Your task to perform on an android device: turn off translation in the chrome app Image 0: 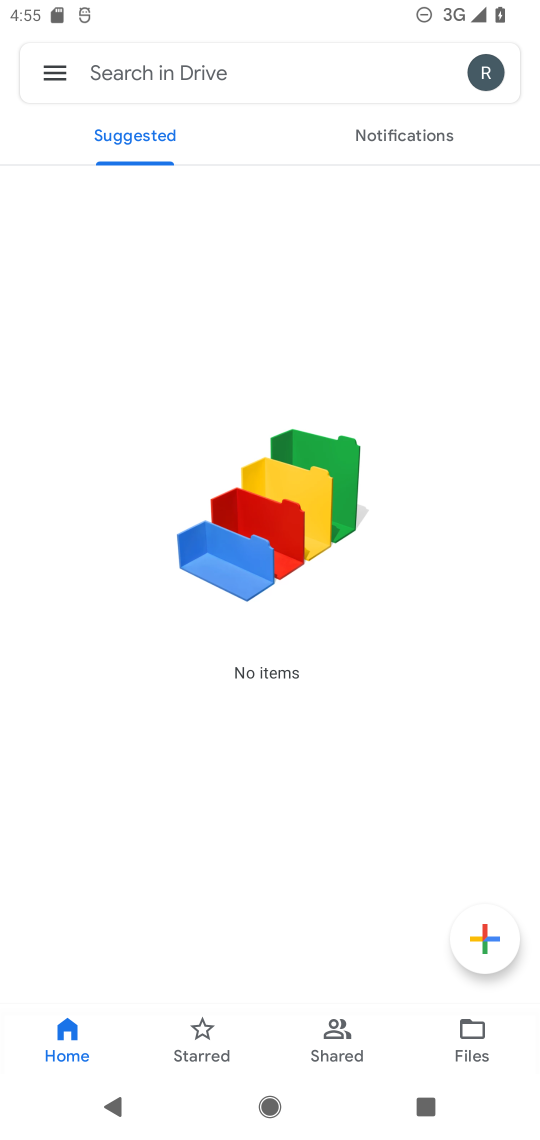
Step 0: press home button
Your task to perform on an android device: turn off translation in the chrome app Image 1: 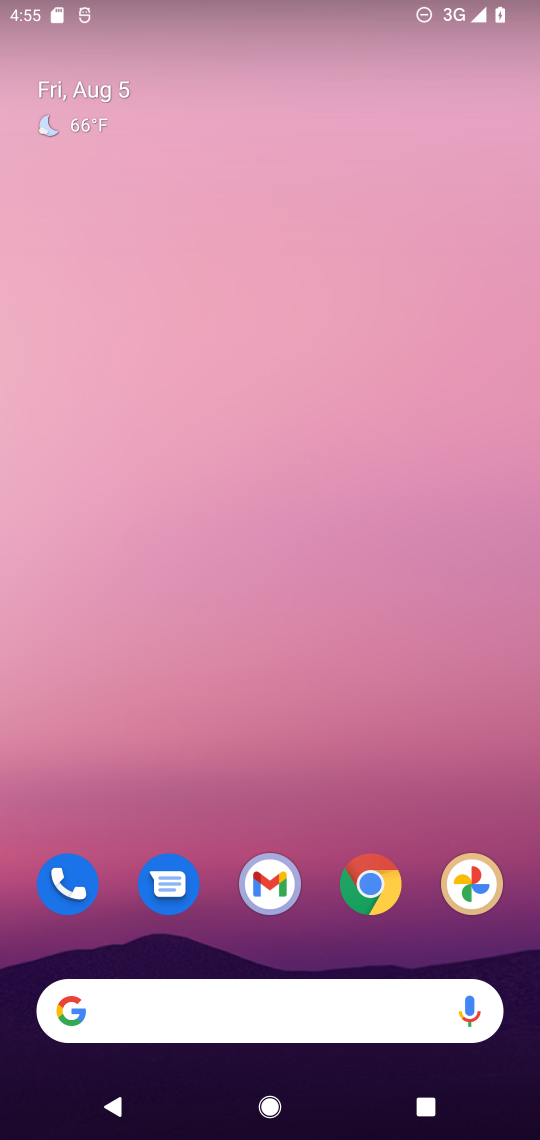
Step 1: drag from (418, 929) to (198, 57)
Your task to perform on an android device: turn off translation in the chrome app Image 2: 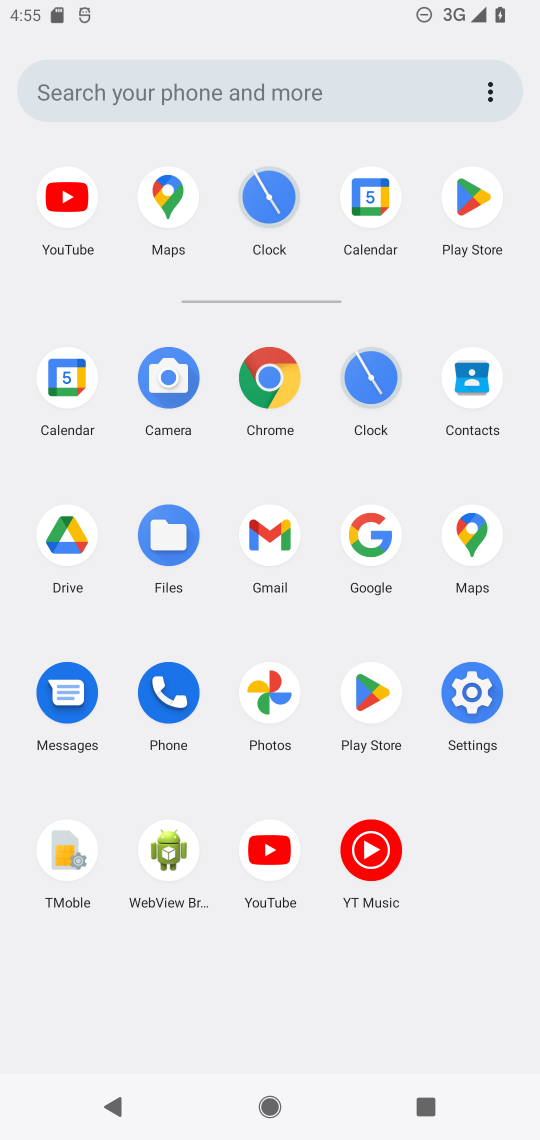
Step 2: click (288, 403)
Your task to perform on an android device: turn off translation in the chrome app Image 3: 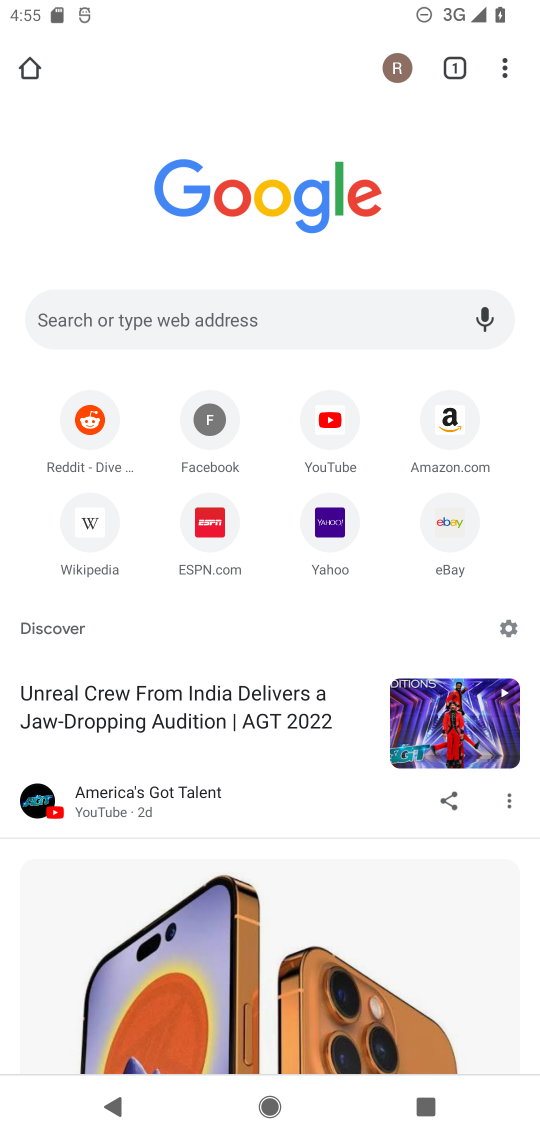
Step 3: click (507, 64)
Your task to perform on an android device: turn off translation in the chrome app Image 4: 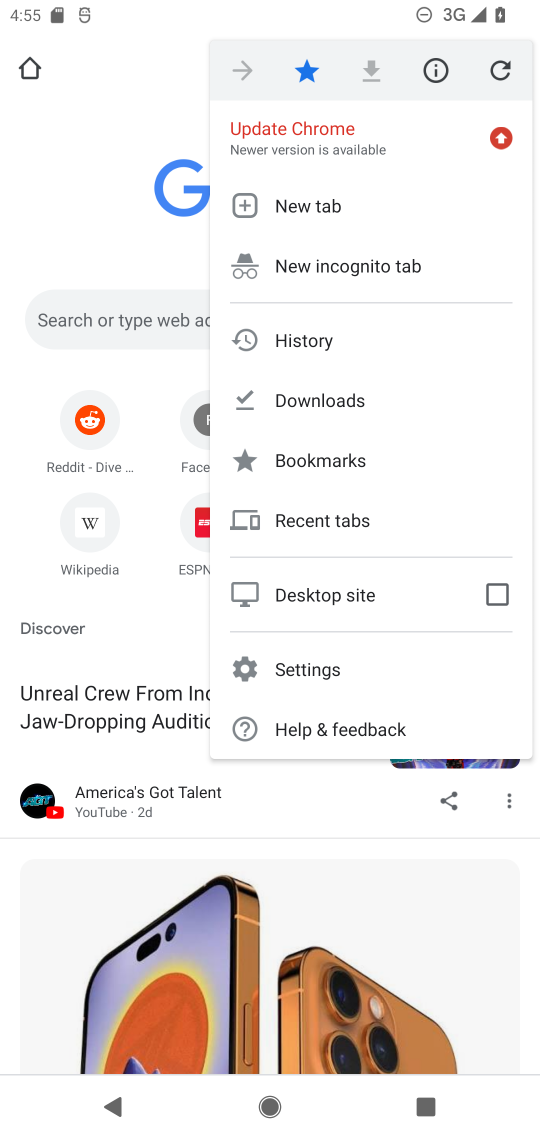
Step 4: click (322, 669)
Your task to perform on an android device: turn off translation in the chrome app Image 5: 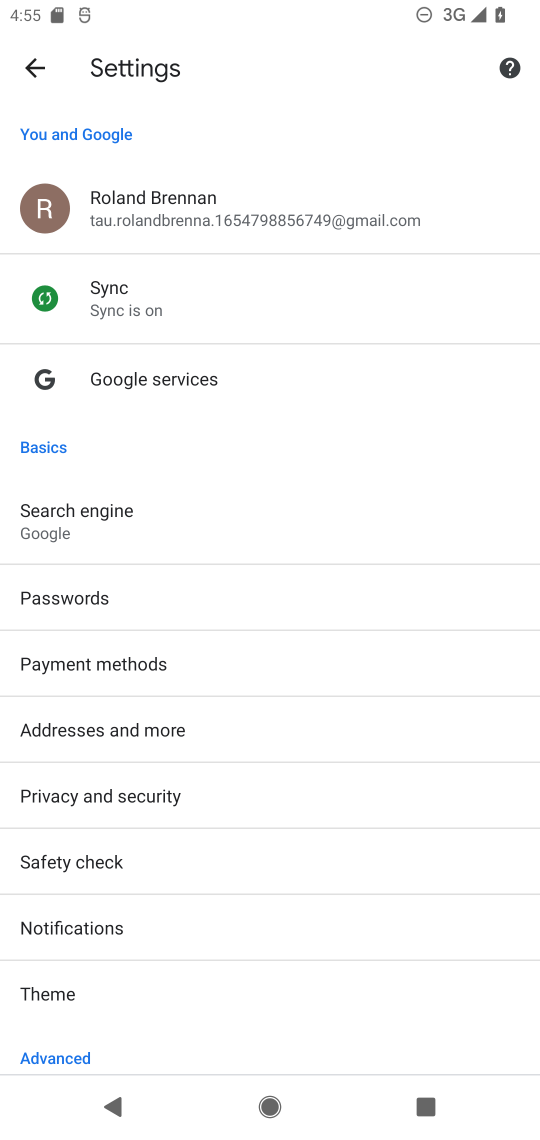
Step 5: drag from (213, 982) to (229, 109)
Your task to perform on an android device: turn off translation in the chrome app Image 6: 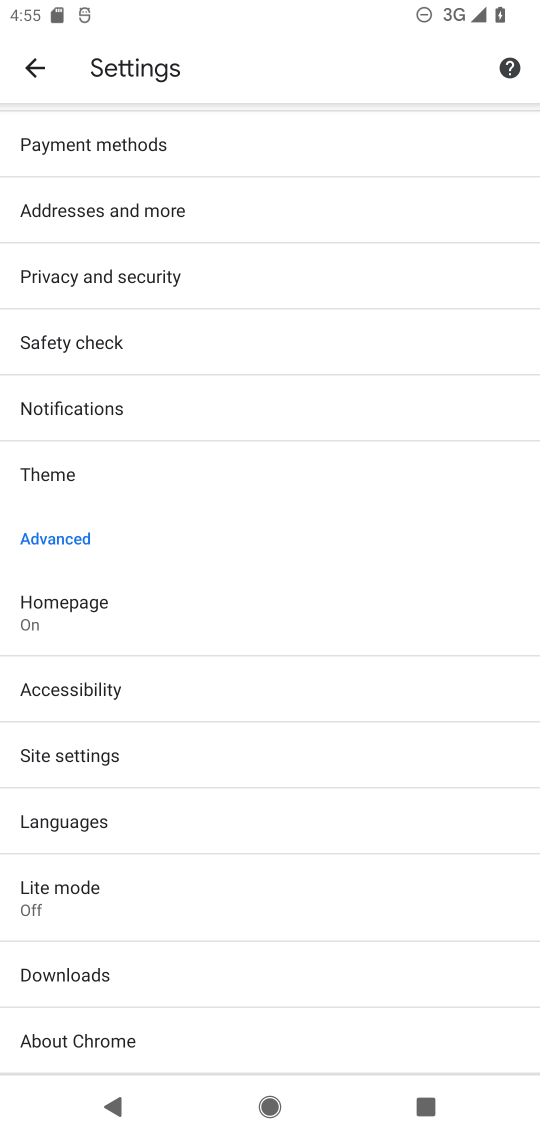
Step 6: click (161, 827)
Your task to perform on an android device: turn off translation in the chrome app Image 7: 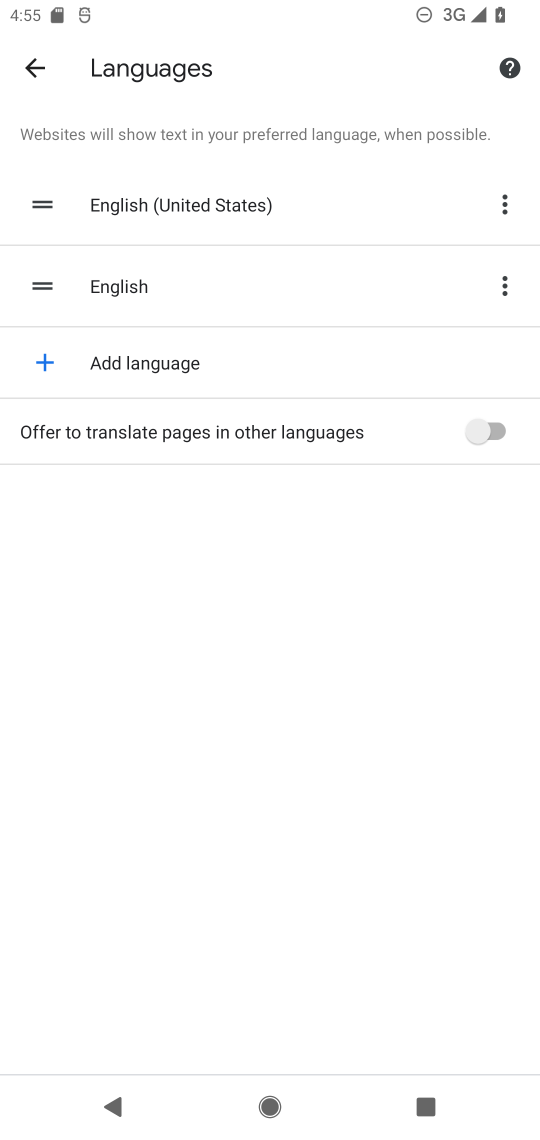
Step 7: task complete